Your task to perform on an android device: Search for Mexican restaurants on Maps Image 0: 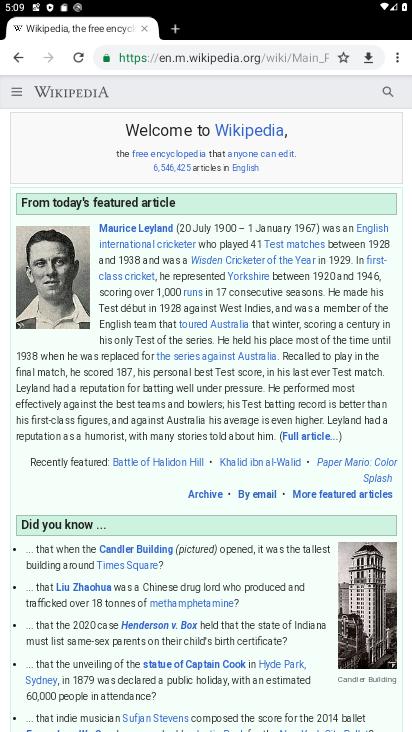
Step 0: press home button
Your task to perform on an android device: Search for Mexican restaurants on Maps Image 1: 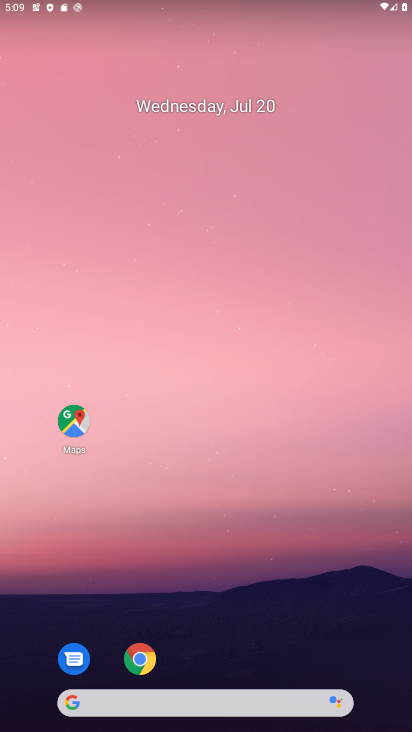
Step 1: drag from (205, 658) to (205, 296)
Your task to perform on an android device: Search for Mexican restaurants on Maps Image 2: 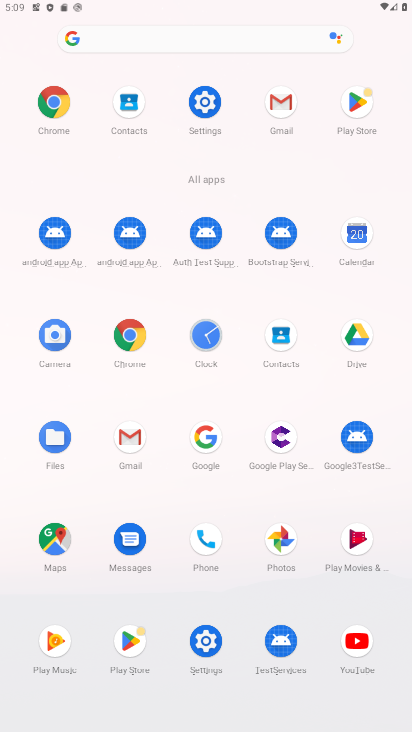
Step 2: click (50, 548)
Your task to perform on an android device: Search for Mexican restaurants on Maps Image 3: 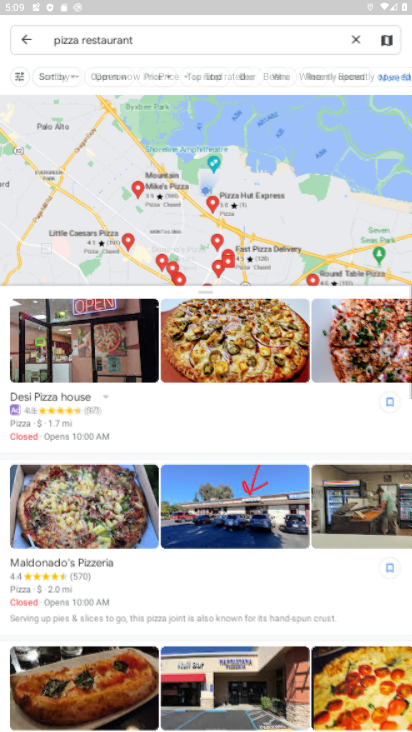
Step 3: click (354, 43)
Your task to perform on an android device: Search for Mexican restaurants on Maps Image 4: 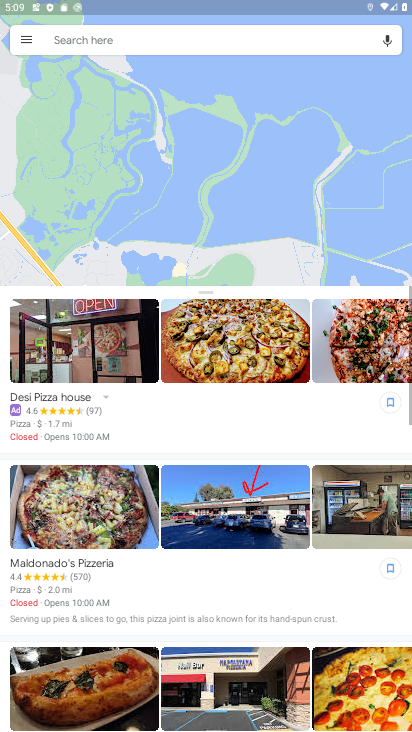
Step 4: click (147, 36)
Your task to perform on an android device: Search for Mexican restaurants on Maps Image 5: 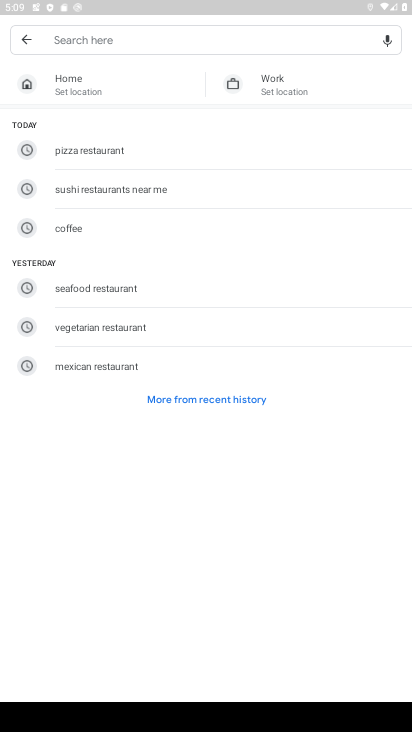
Step 5: click (94, 371)
Your task to perform on an android device: Search for Mexican restaurants on Maps Image 6: 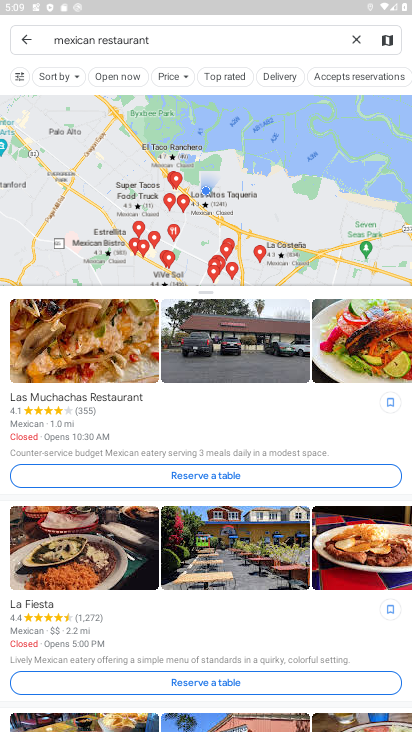
Step 6: task complete